Your task to perform on an android device: Open the Play Movies app and select the watchlist tab. Image 0: 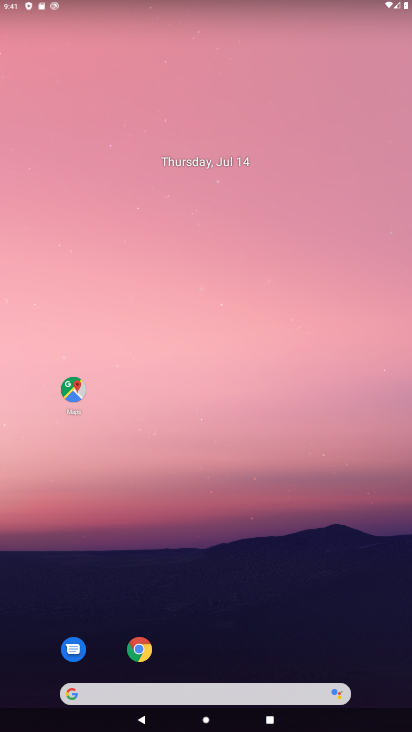
Step 0: drag from (182, 648) to (247, 179)
Your task to perform on an android device: Open the Play Movies app and select the watchlist tab. Image 1: 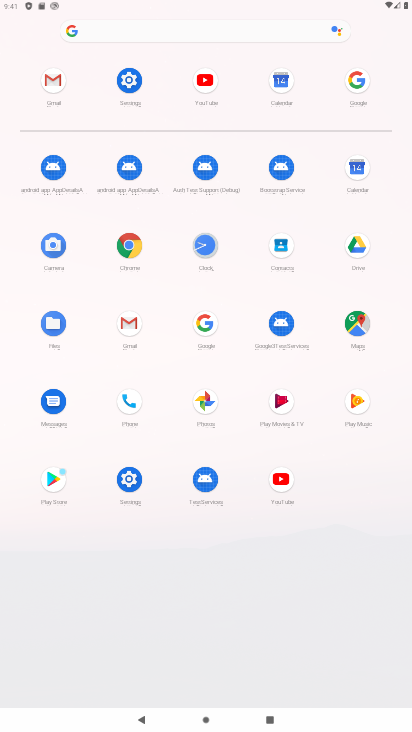
Step 1: click (284, 414)
Your task to perform on an android device: Open the Play Movies app and select the watchlist tab. Image 2: 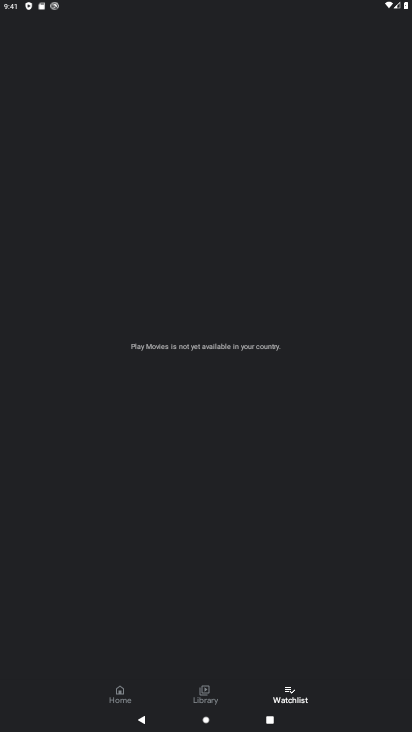
Step 2: click (296, 704)
Your task to perform on an android device: Open the Play Movies app and select the watchlist tab. Image 3: 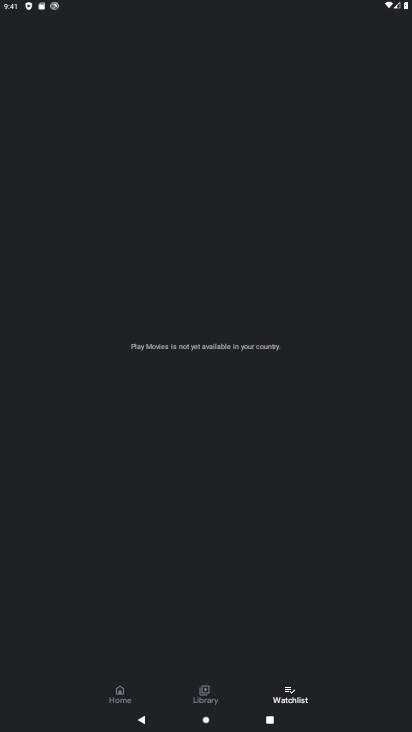
Step 3: task complete